Your task to perform on an android device: Open the stopwatch Image 0: 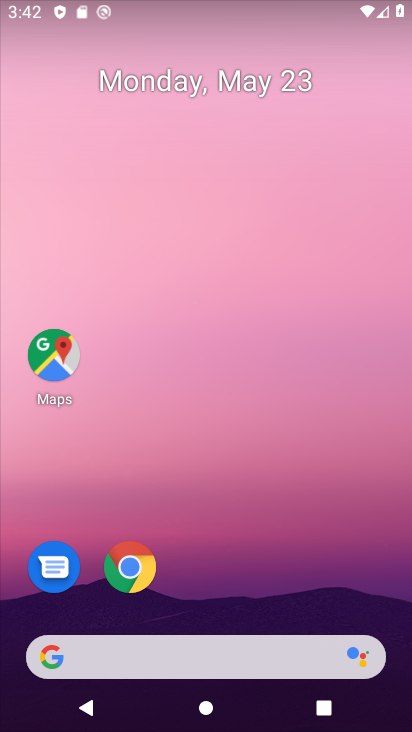
Step 0: click (381, 581)
Your task to perform on an android device: Open the stopwatch Image 1: 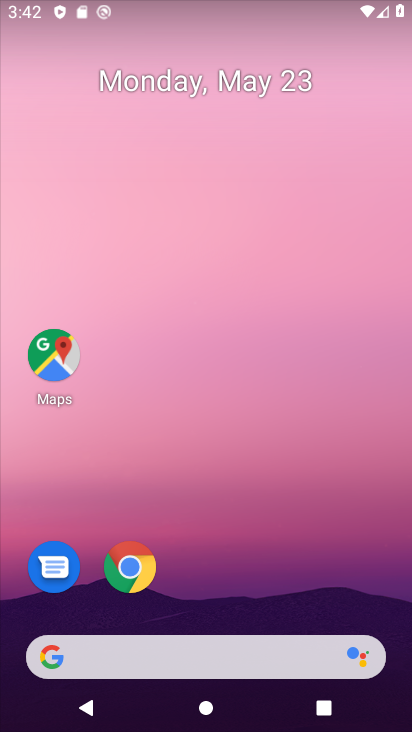
Step 1: click (381, 581)
Your task to perform on an android device: Open the stopwatch Image 2: 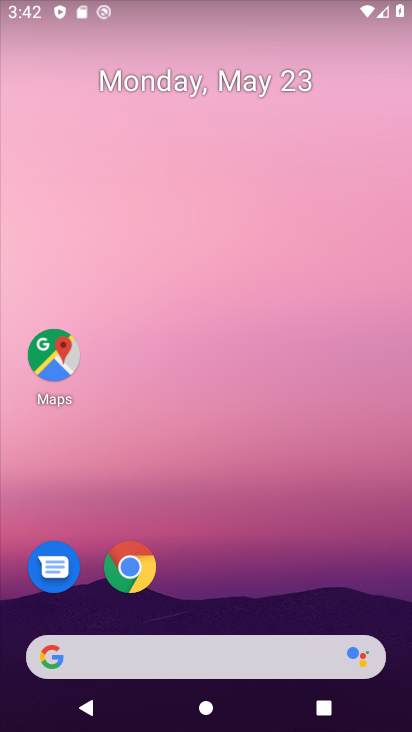
Step 2: drag from (384, 606) to (282, 232)
Your task to perform on an android device: Open the stopwatch Image 3: 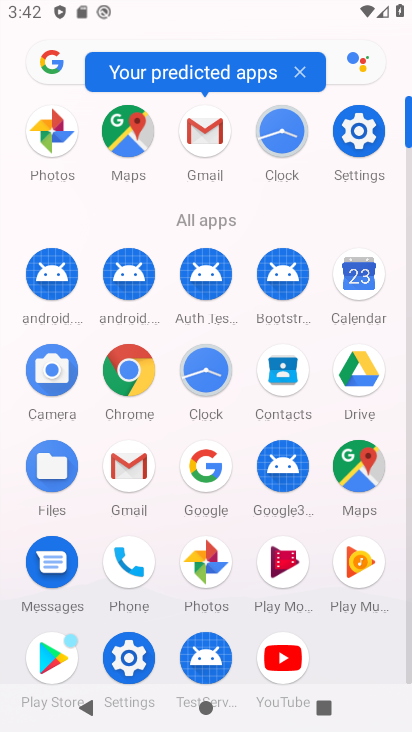
Step 3: click (205, 368)
Your task to perform on an android device: Open the stopwatch Image 4: 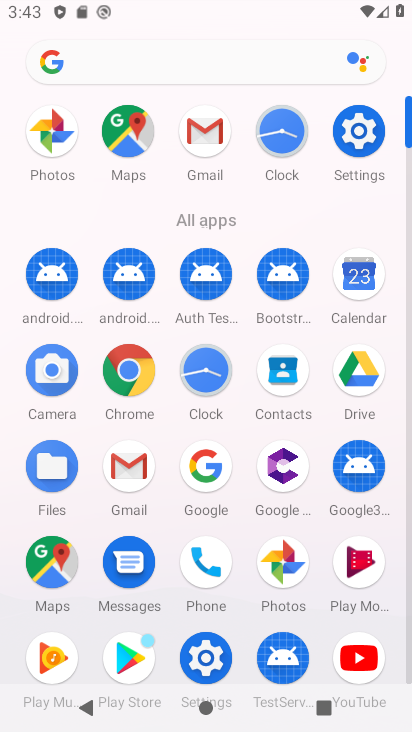
Step 4: click (205, 368)
Your task to perform on an android device: Open the stopwatch Image 5: 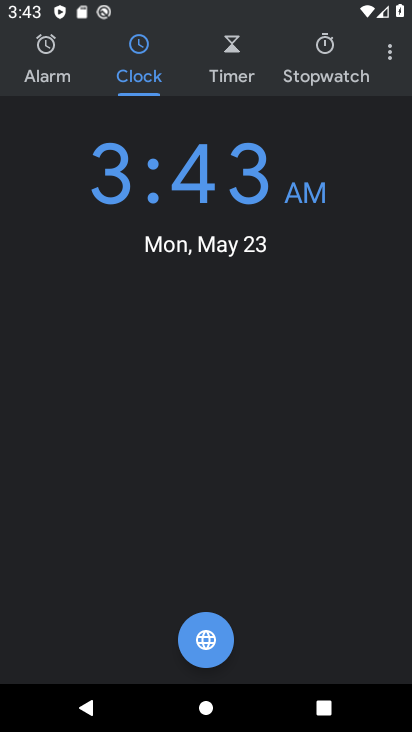
Step 5: click (325, 58)
Your task to perform on an android device: Open the stopwatch Image 6: 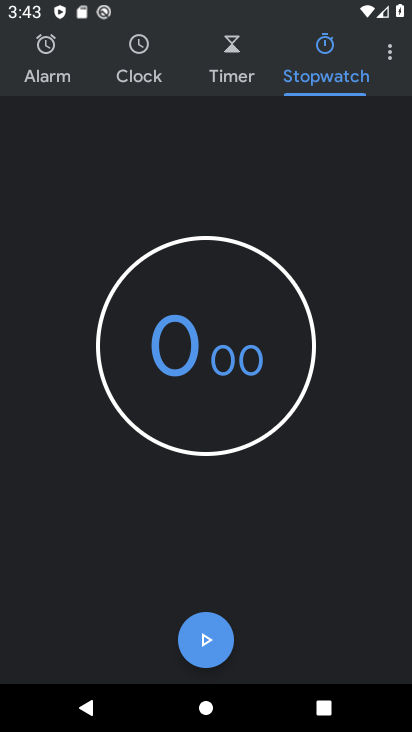
Step 6: task complete